Your task to perform on an android device: Go to Reddit.com Image 0: 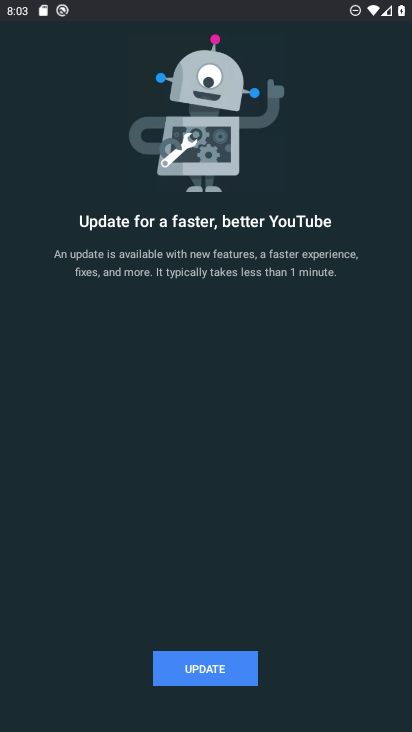
Step 0: press home button
Your task to perform on an android device: Go to Reddit.com Image 1: 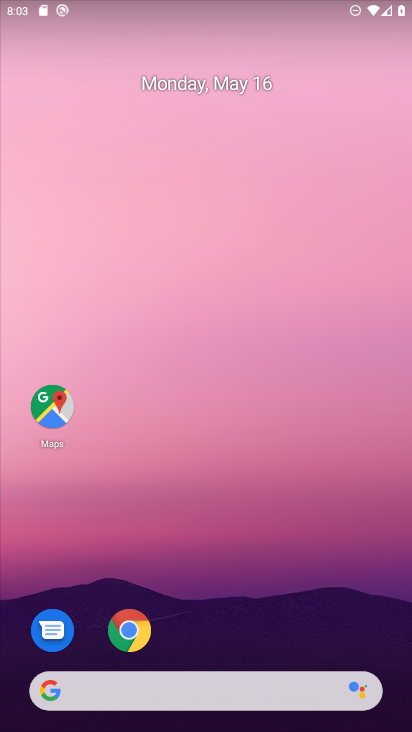
Step 1: click (131, 631)
Your task to perform on an android device: Go to Reddit.com Image 2: 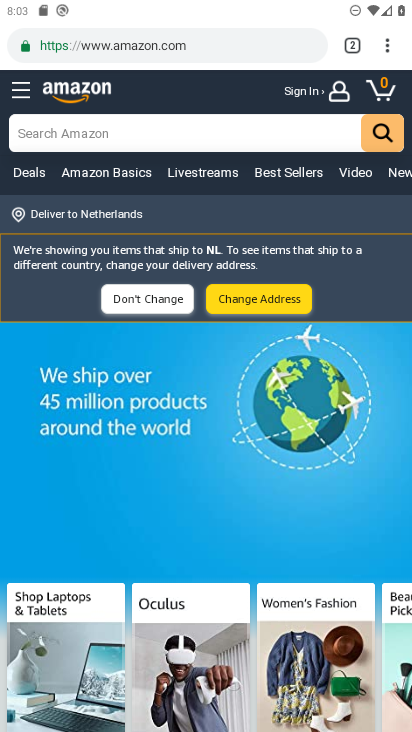
Step 2: click (344, 33)
Your task to perform on an android device: Go to Reddit.com Image 3: 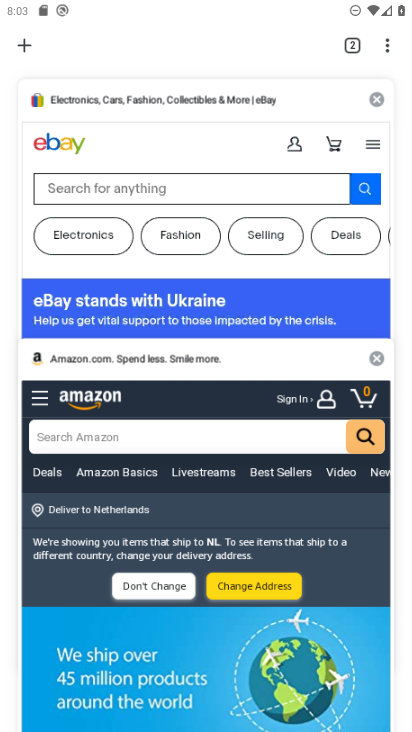
Step 3: click (14, 33)
Your task to perform on an android device: Go to Reddit.com Image 4: 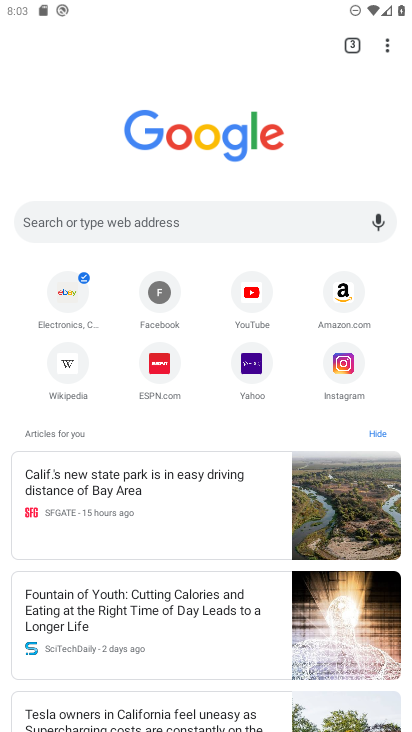
Step 4: click (304, 226)
Your task to perform on an android device: Go to Reddit.com Image 5: 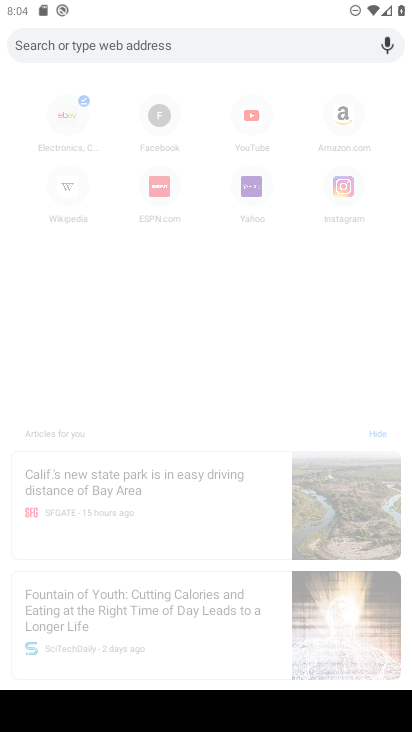
Step 5: type "Reddit.com"
Your task to perform on an android device: Go to Reddit.com Image 6: 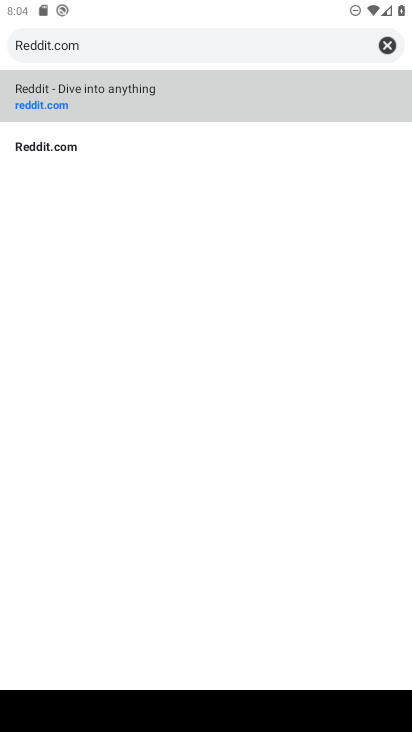
Step 6: click (140, 93)
Your task to perform on an android device: Go to Reddit.com Image 7: 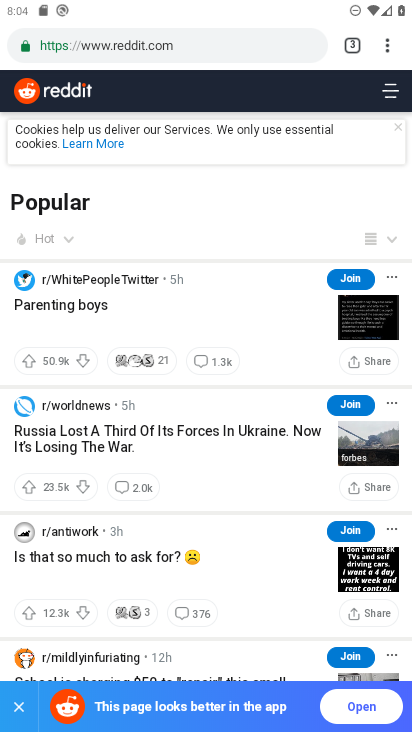
Step 7: task complete